Your task to perform on an android device: delete browsing data in the chrome app Image 0: 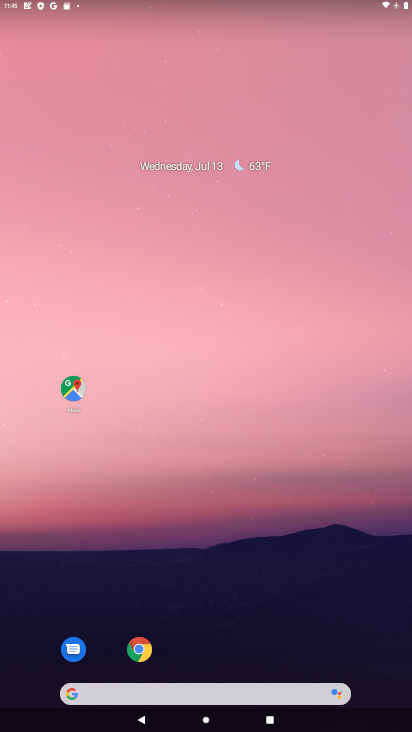
Step 0: drag from (235, 619) to (253, 395)
Your task to perform on an android device: delete browsing data in the chrome app Image 1: 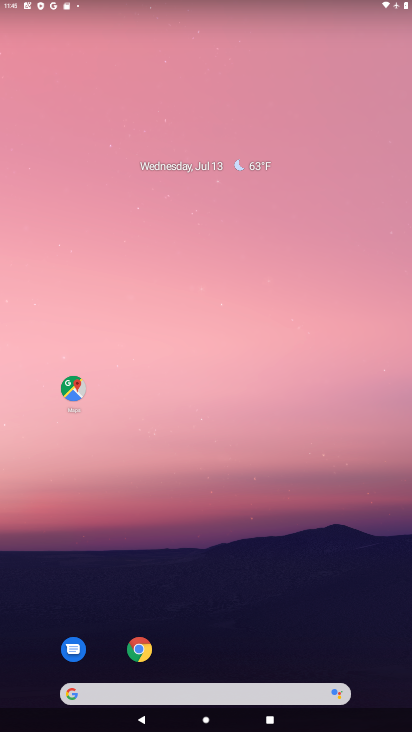
Step 1: drag from (204, 605) to (234, 287)
Your task to perform on an android device: delete browsing data in the chrome app Image 2: 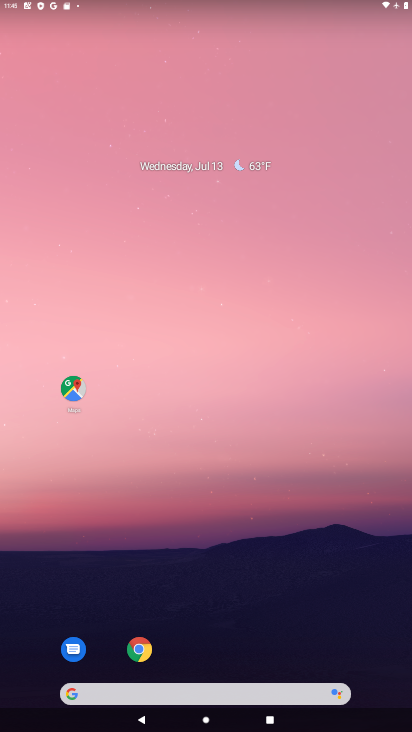
Step 2: drag from (212, 650) to (235, 288)
Your task to perform on an android device: delete browsing data in the chrome app Image 3: 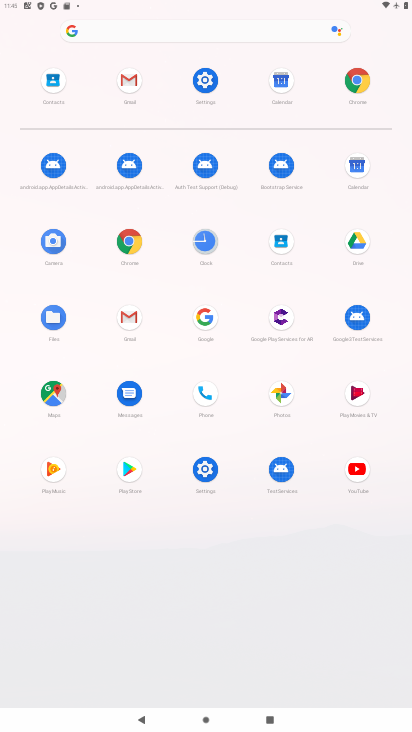
Step 3: click (358, 68)
Your task to perform on an android device: delete browsing data in the chrome app Image 4: 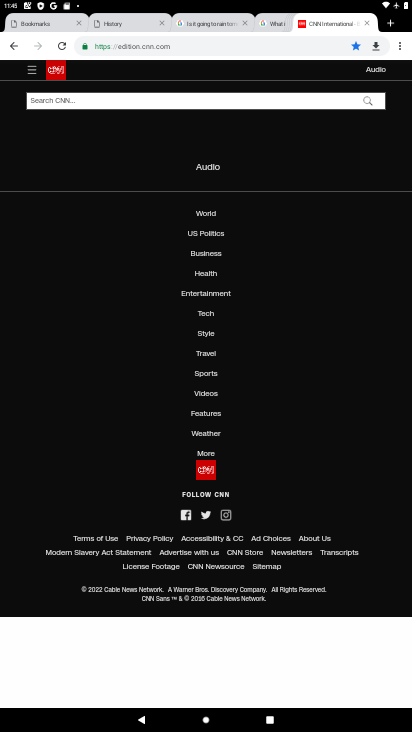
Step 4: click (400, 43)
Your task to perform on an android device: delete browsing data in the chrome app Image 5: 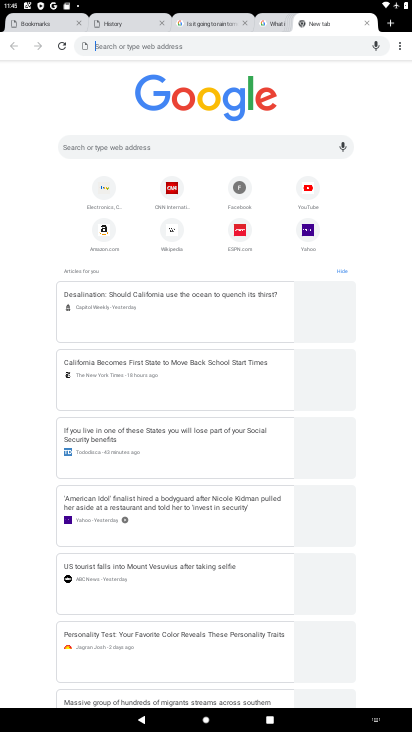
Step 5: click (396, 31)
Your task to perform on an android device: delete browsing data in the chrome app Image 6: 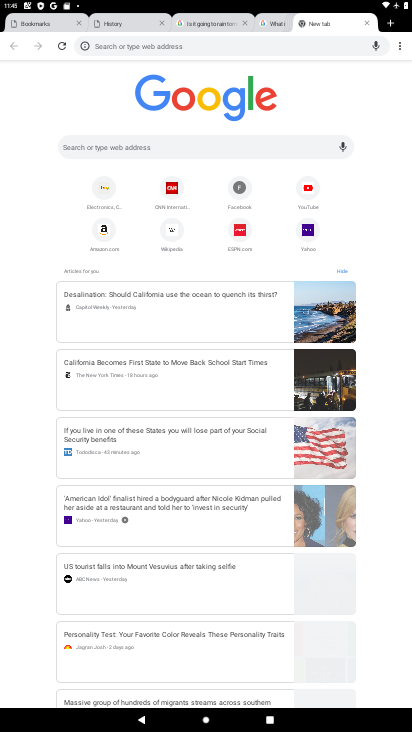
Step 6: click (399, 44)
Your task to perform on an android device: delete browsing data in the chrome app Image 7: 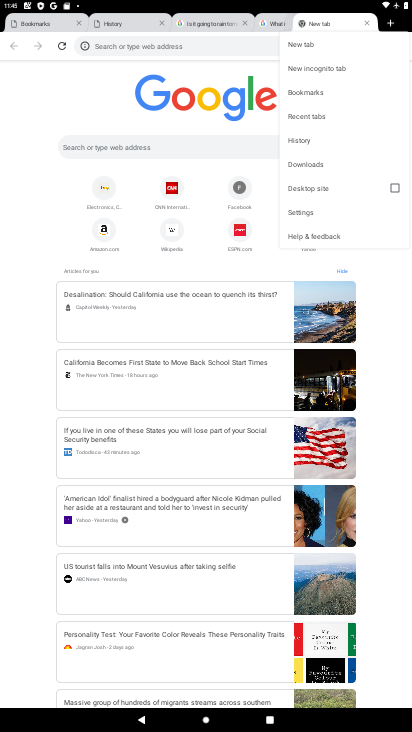
Step 7: click (328, 207)
Your task to perform on an android device: delete browsing data in the chrome app Image 8: 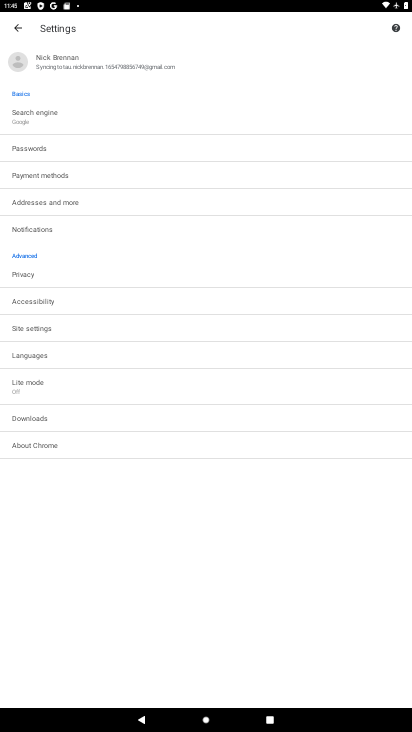
Step 8: click (51, 273)
Your task to perform on an android device: delete browsing data in the chrome app Image 9: 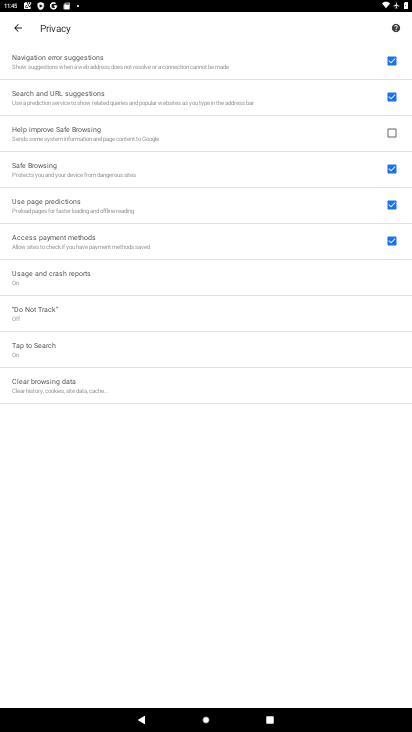
Step 9: click (125, 387)
Your task to perform on an android device: delete browsing data in the chrome app Image 10: 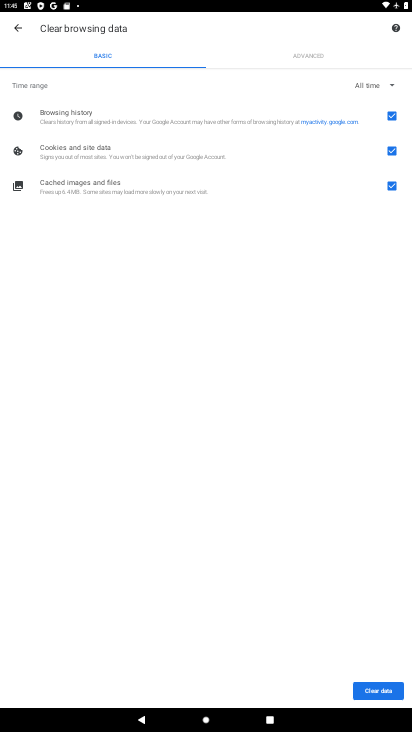
Step 10: click (381, 689)
Your task to perform on an android device: delete browsing data in the chrome app Image 11: 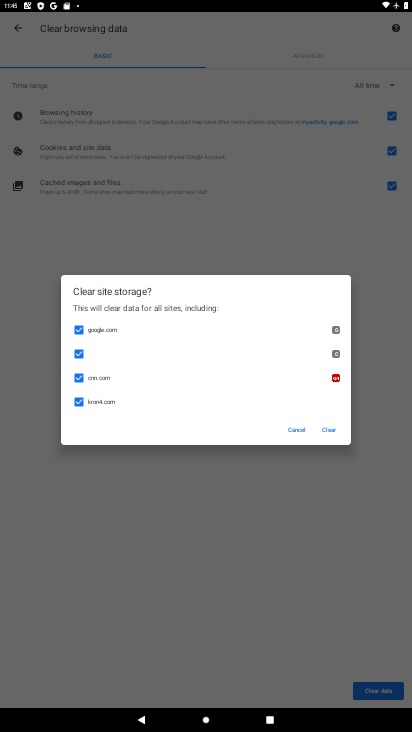
Step 11: click (330, 429)
Your task to perform on an android device: delete browsing data in the chrome app Image 12: 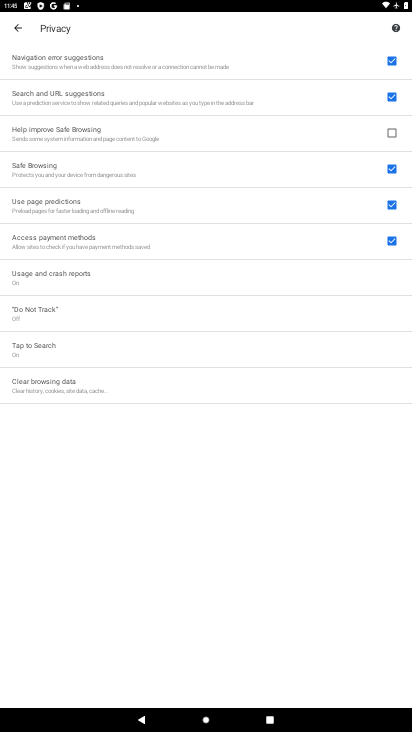
Step 12: task complete